Your task to perform on an android device: delete browsing data in the chrome app Image 0: 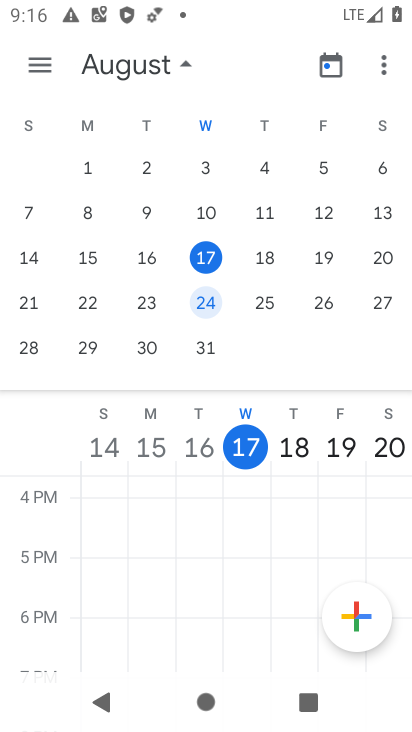
Step 0: press home button
Your task to perform on an android device: delete browsing data in the chrome app Image 1: 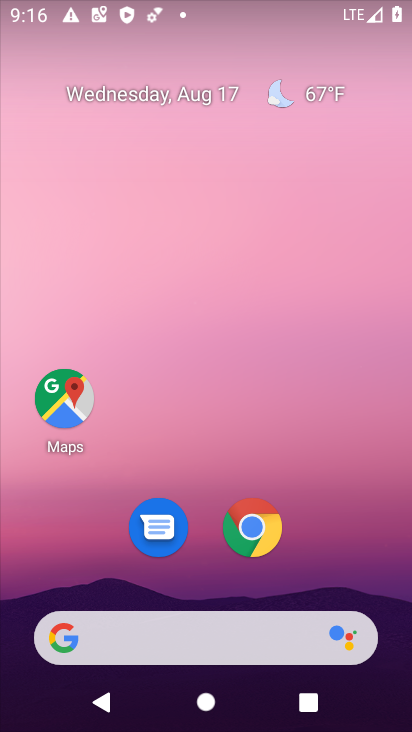
Step 1: click (242, 525)
Your task to perform on an android device: delete browsing data in the chrome app Image 2: 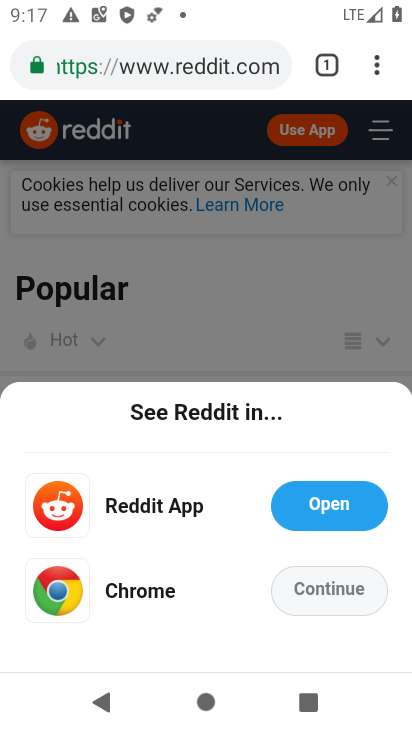
Step 2: click (386, 52)
Your task to perform on an android device: delete browsing data in the chrome app Image 3: 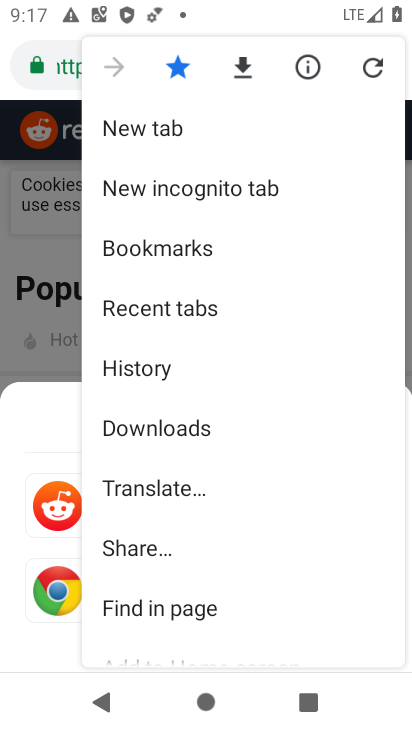
Step 3: click (118, 374)
Your task to perform on an android device: delete browsing data in the chrome app Image 4: 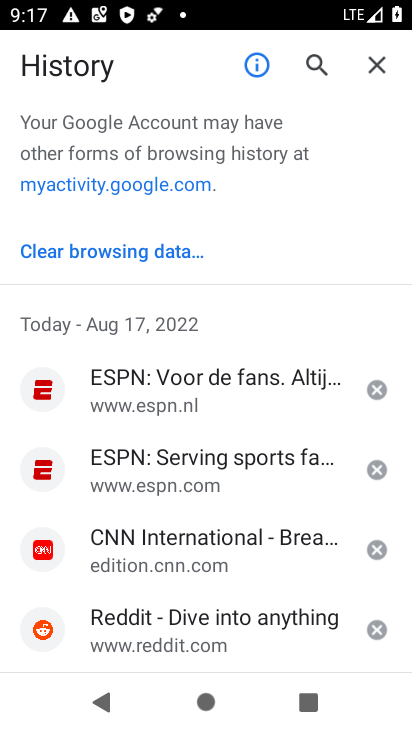
Step 4: click (85, 254)
Your task to perform on an android device: delete browsing data in the chrome app Image 5: 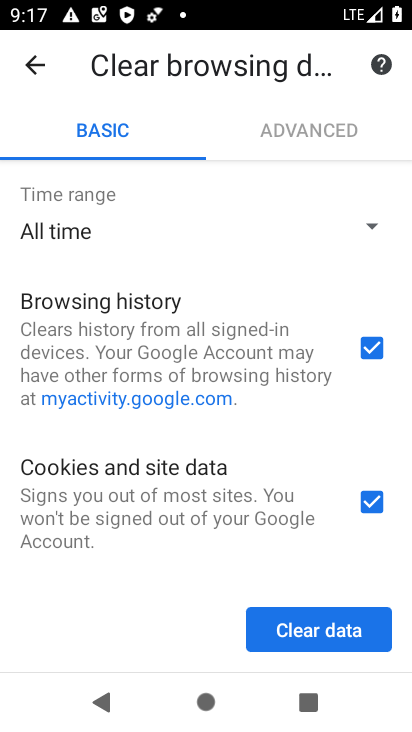
Step 5: click (371, 508)
Your task to perform on an android device: delete browsing data in the chrome app Image 6: 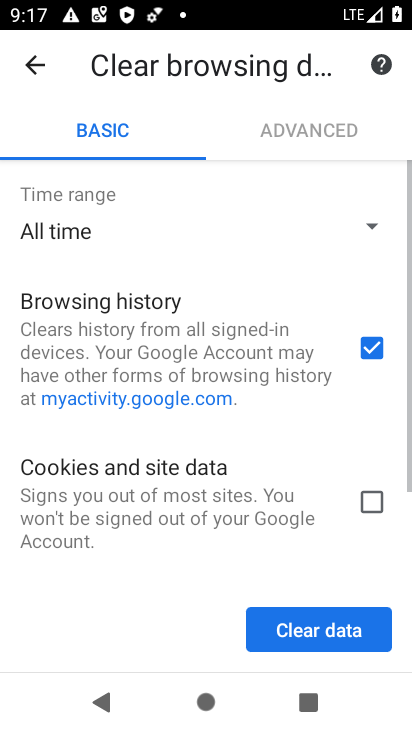
Step 6: drag from (224, 533) to (296, 195)
Your task to perform on an android device: delete browsing data in the chrome app Image 7: 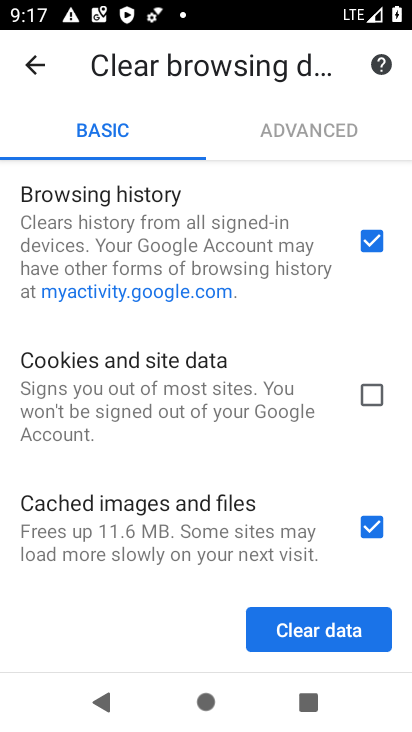
Step 7: click (372, 526)
Your task to perform on an android device: delete browsing data in the chrome app Image 8: 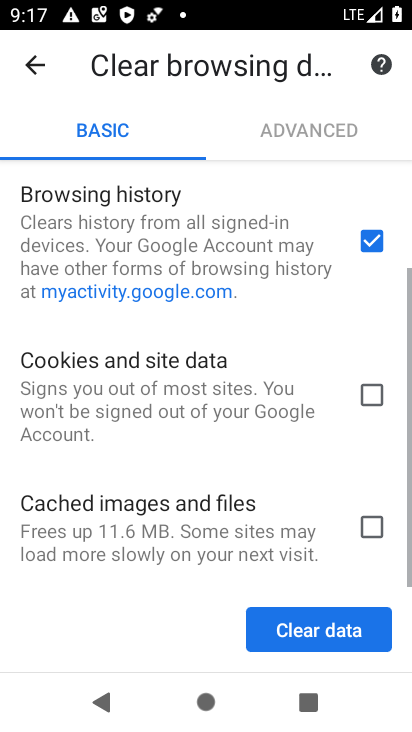
Step 8: click (300, 643)
Your task to perform on an android device: delete browsing data in the chrome app Image 9: 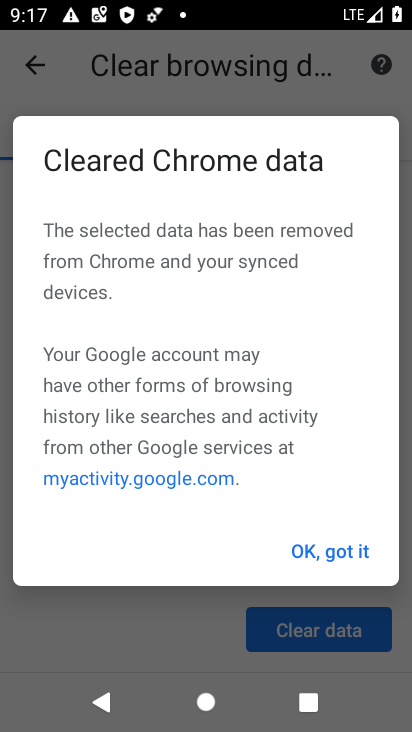
Step 9: click (307, 557)
Your task to perform on an android device: delete browsing data in the chrome app Image 10: 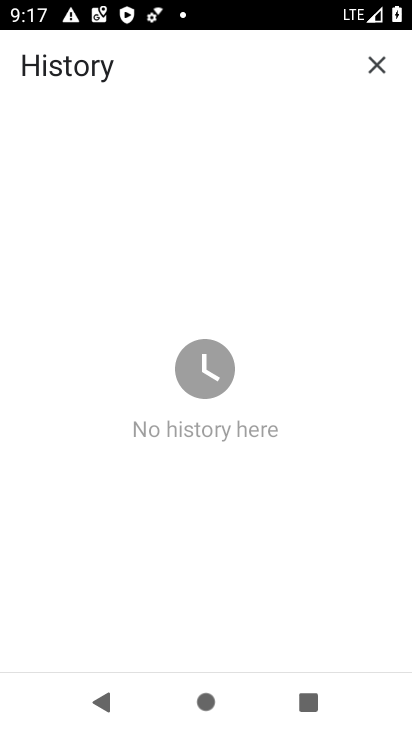
Step 10: task complete